Your task to perform on an android device: add a contact Image 0: 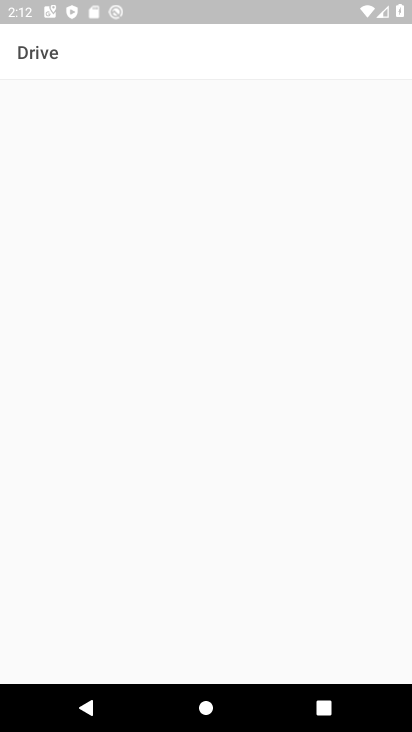
Step 0: click (126, 577)
Your task to perform on an android device: add a contact Image 1: 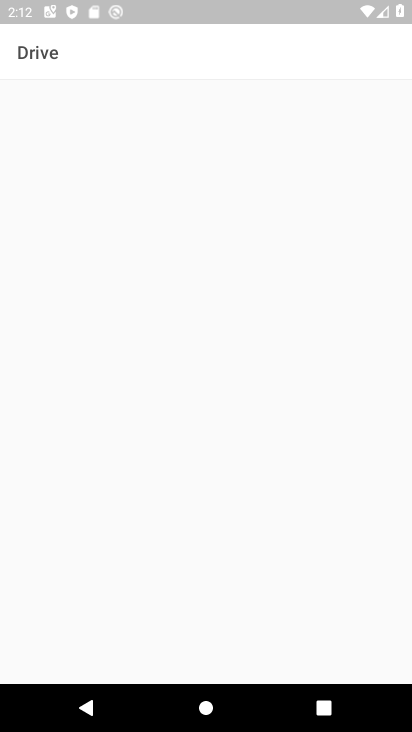
Step 1: press home button
Your task to perform on an android device: add a contact Image 2: 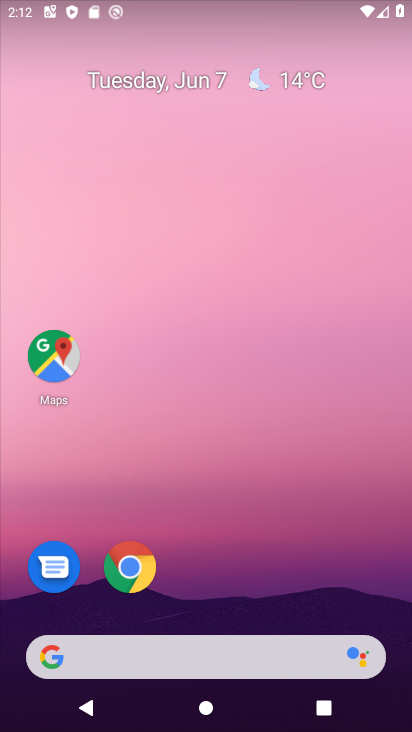
Step 2: drag from (230, 581) to (230, 185)
Your task to perform on an android device: add a contact Image 3: 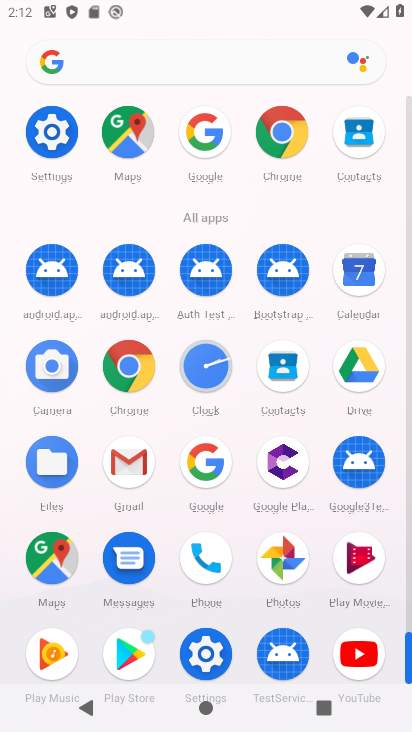
Step 3: click (360, 144)
Your task to perform on an android device: add a contact Image 4: 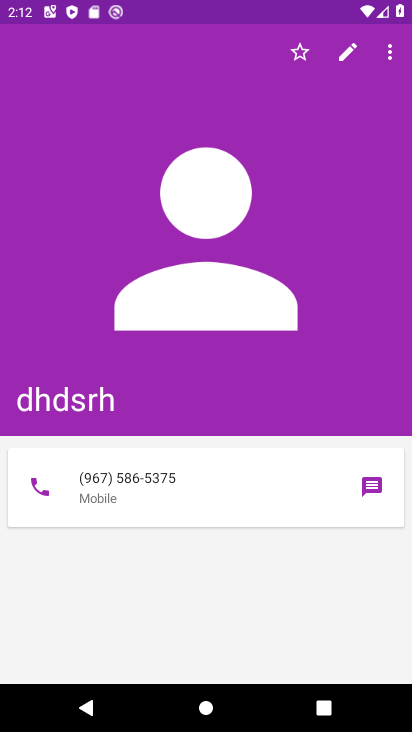
Step 4: press back button
Your task to perform on an android device: add a contact Image 5: 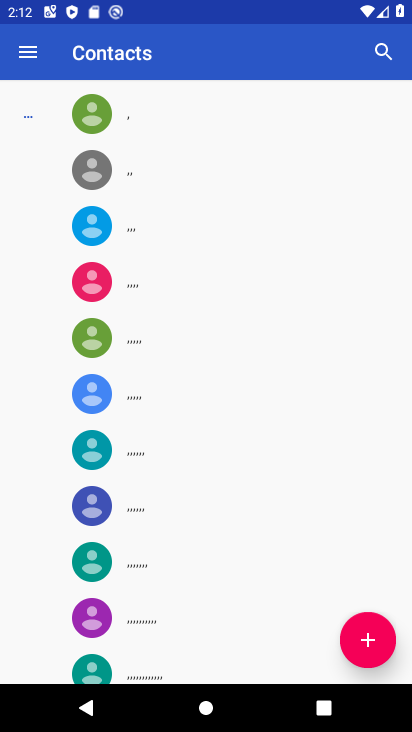
Step 5: click (357, 627)
Your task to perform on an android device: add a contact Image 6: 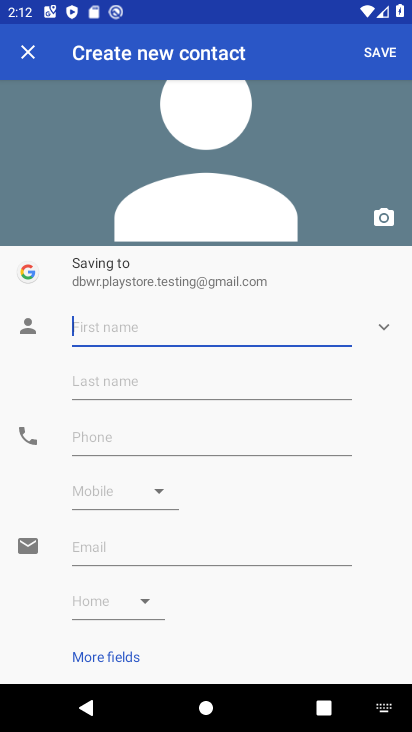
Step 6: type "gjgfj"
Your task to perform on an android device: add a contact Image 7: 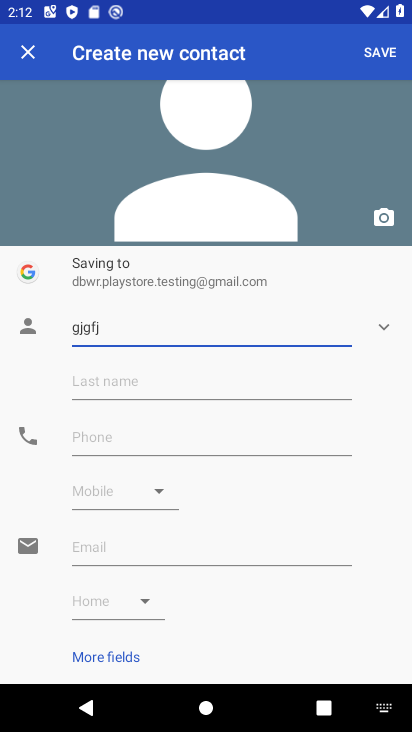
Step 7: click (164, 443)
Your task to perform on an android device: add a contact Image 8: 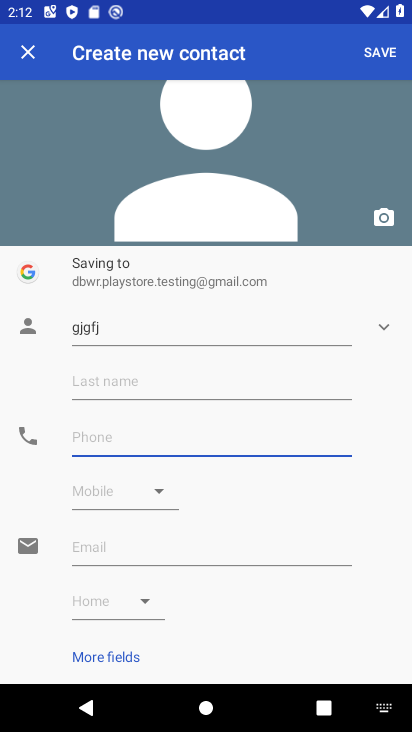
Step 8: type "9676786565"
Your task to perform on an android device: add a contact Image 9: 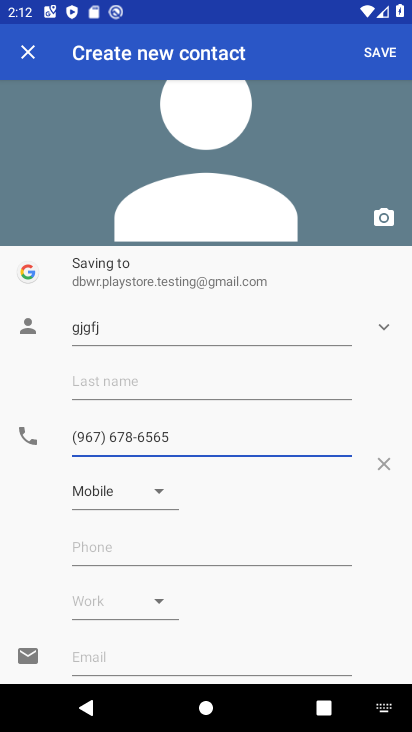
Step 9: click (389, 50)
Your task to perform on an android device: add a contact Image 10: 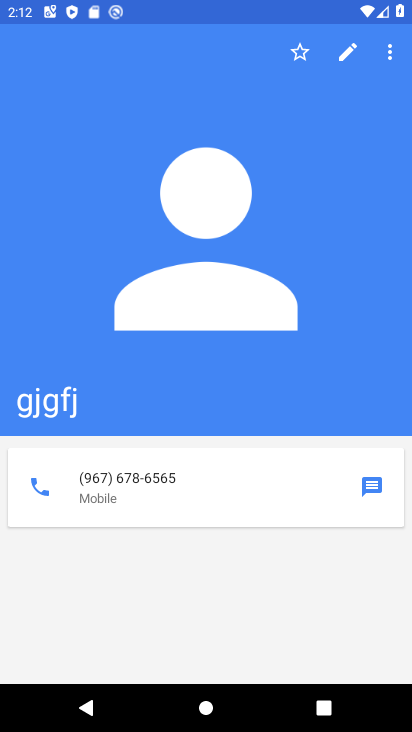
Step 10: task complete